Your task to perform on an android device: Open the stopwatch Image 0: 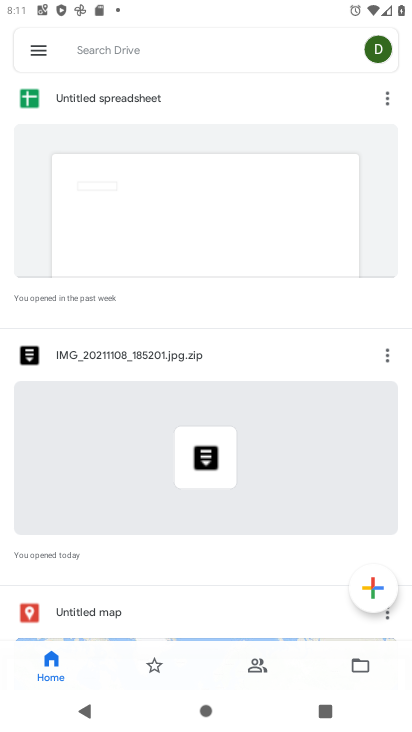
Step 0: press home button
Your task to perform on an android device: Open the stopwatch Image 1: 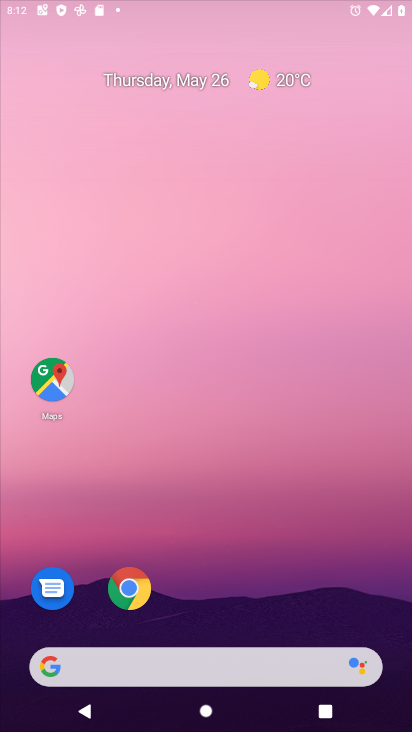
Step 1: drag from (385, 632) to (292, 39)
Your task to perform on an android device: Open the stopwatch Image 2: 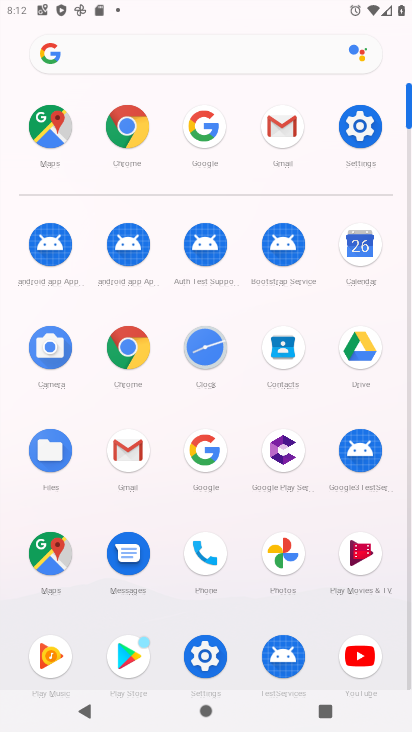
Step 2: click (201, 355)
Your task to perform on an android device: Open the stopwatch Image 3: 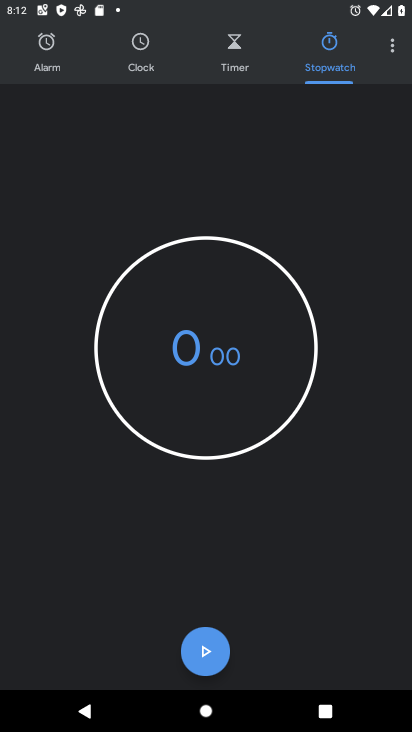
Step 3: task complete